Your task to perform on an android device: show emergency info Image 0: 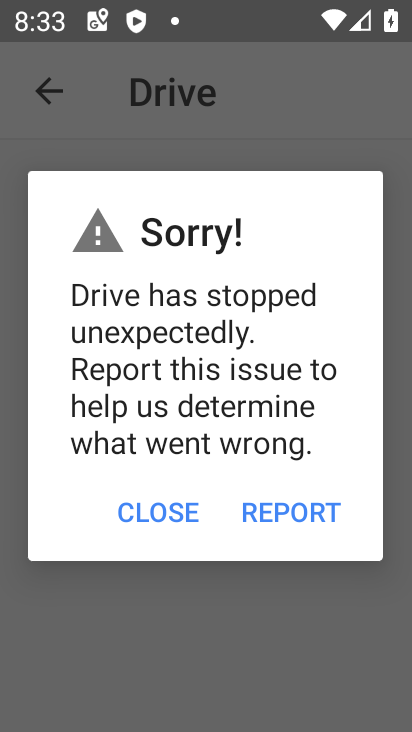
Step 0: press home button
Your task to perform on an android device: show emergency info Image 1: 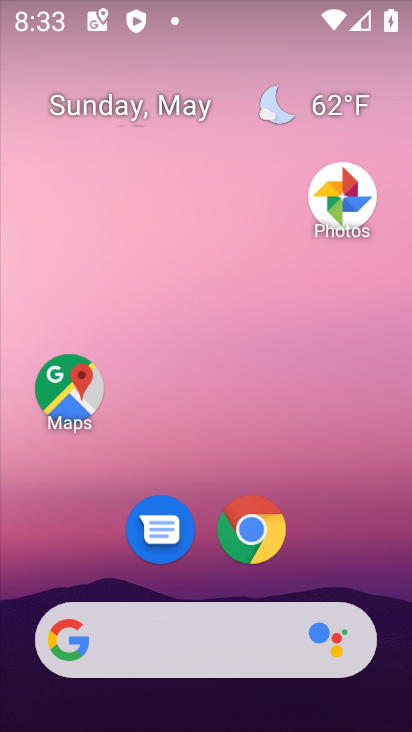
Step 1: drag from (372, 544) to (341, 117)
Your task to perform on an android device: show emergency info Image 2: 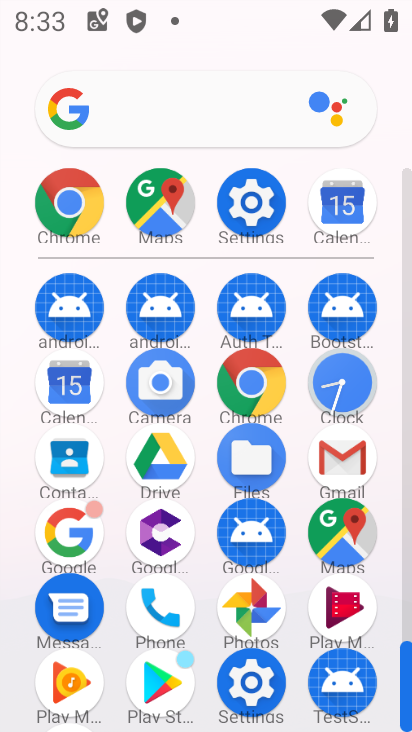
Step 2: click (246, 195)
Your task to perform on an android device: show emergency info Image 3: 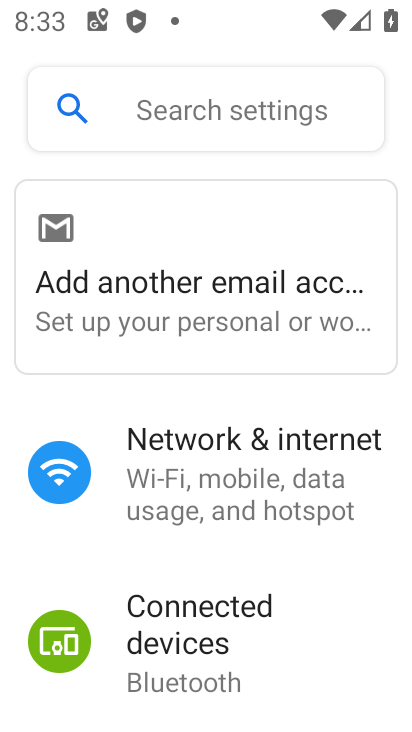
Step 3: drag from (279, 641) to (285, 265)
Your task to perform on an android device: show emergency info Image 4: 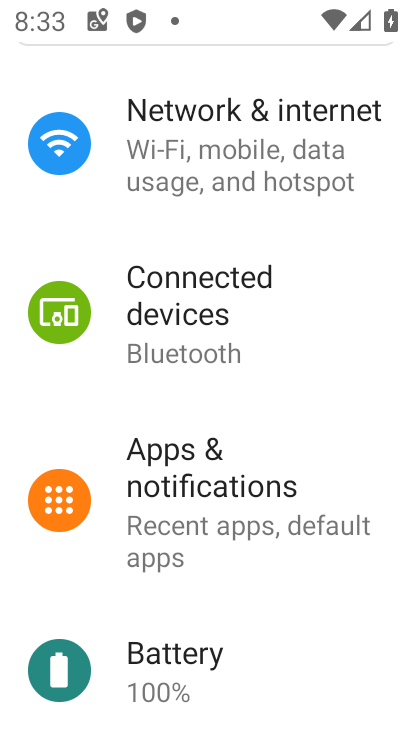
Step 4: drag from (301, 605) to (305, 255)
Your task to perform on an android device: show emergency info Image 5: 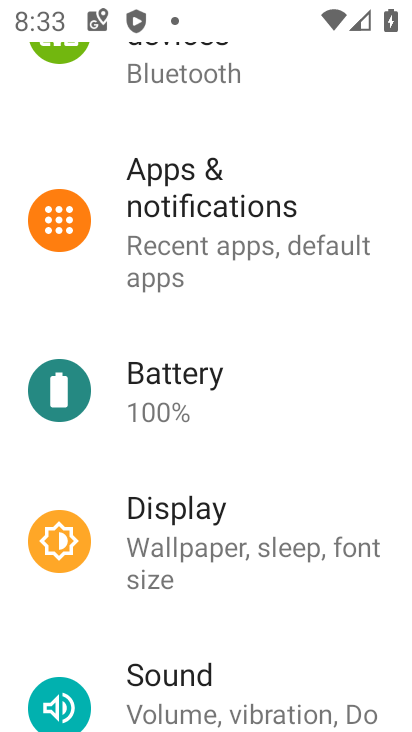
Step 5: click (300, 297)
Your task to perform on an android device: show emergency info Image 6: 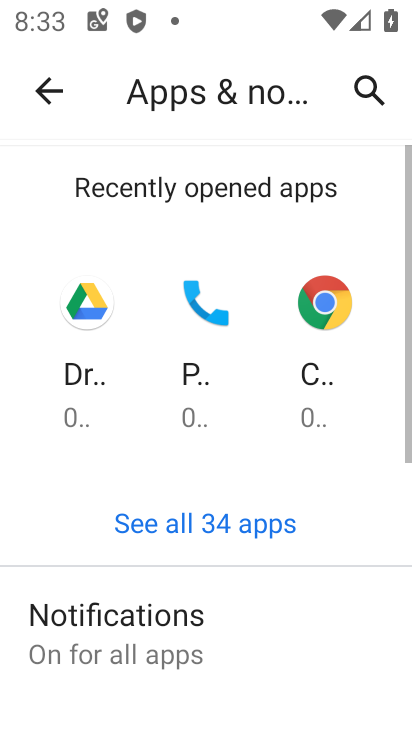
Step 6: click (31, 108)
Your task to perform on an android device: show emergency info Image 7: 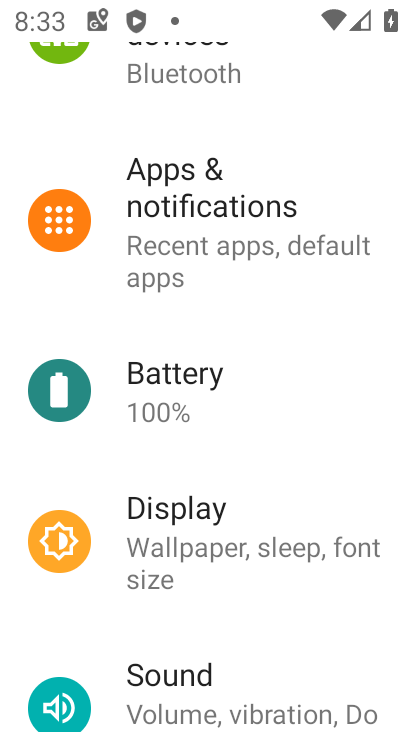
Step 7: drag from (293, 672) to (323, 243)
Your task to perform on an android device: show emergency info Image 8: 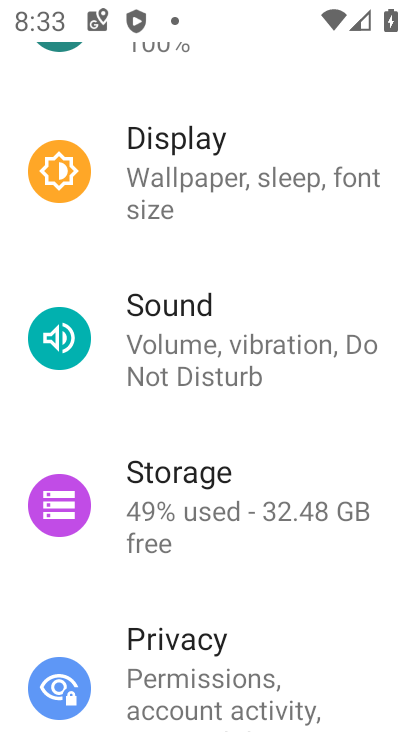
Step 8: drag from (333, 615) to (342, 253)
Your task to perform on an android device: show emergency info Image 9: 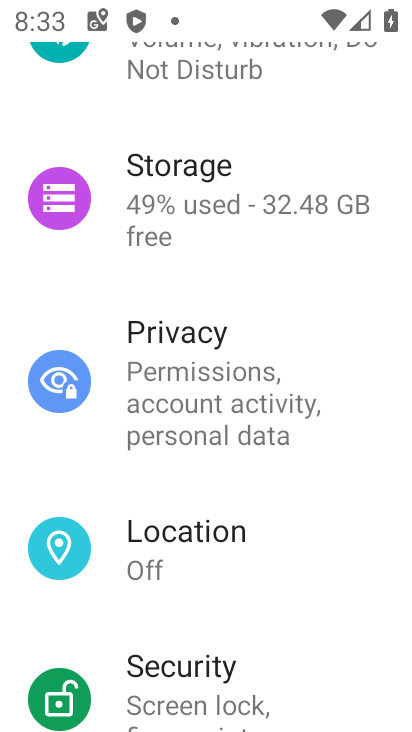
Step 9: drag from (319, 612) to (323, 221)
Your task to perform on an android device: show emergency info Image 10: 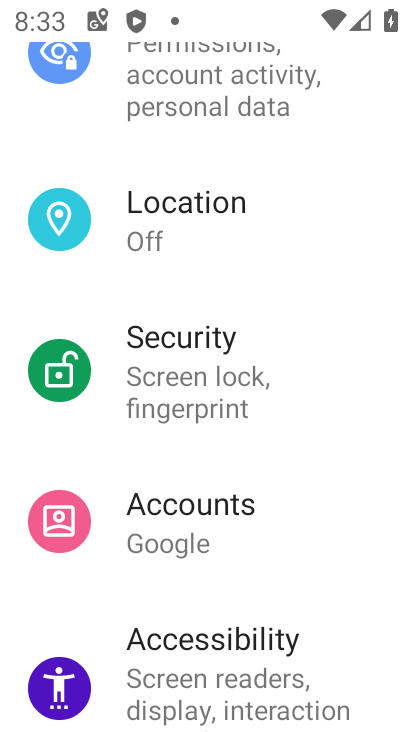
Step 10: drag from (365, 663) to (317, 232)
Your task to perform on an android device: show emergency info Image 11: 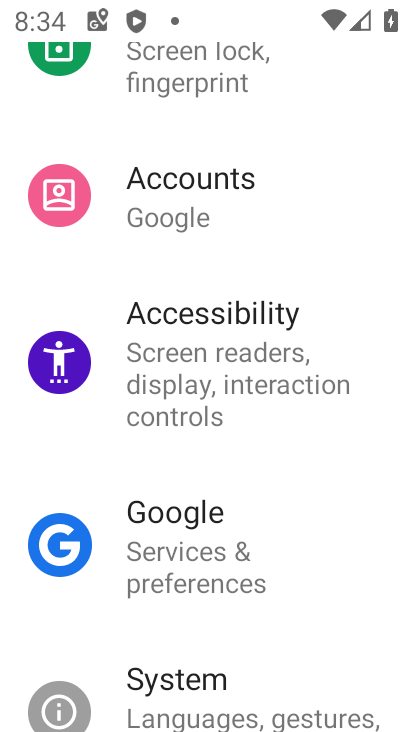
Step 11: drag from (309, 601) to (320, 236)
Your task to perform on an android device: show emergency info Image 12: 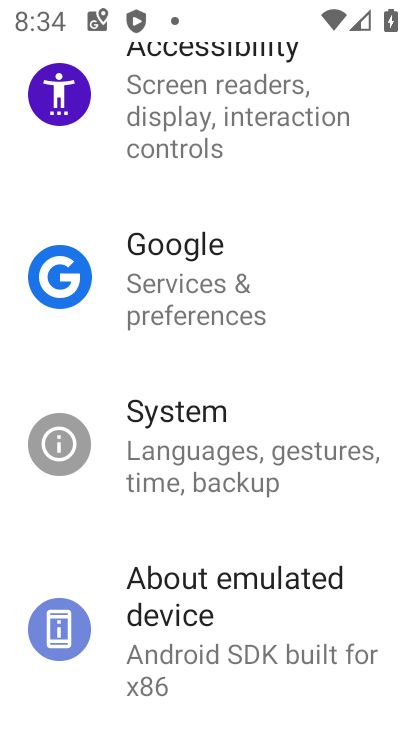
Step 12: click (316, 609)
Your task to perform on an android device: show emergency info Image 13: 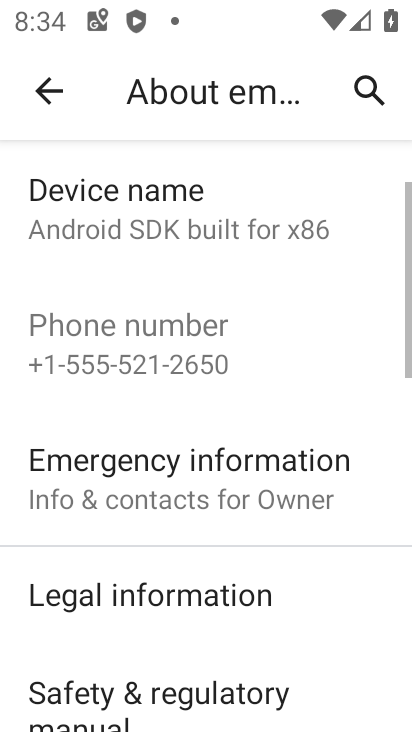
Step 13: click (262, 491)
Your task to perform on an android device: show emergency info Image 14: 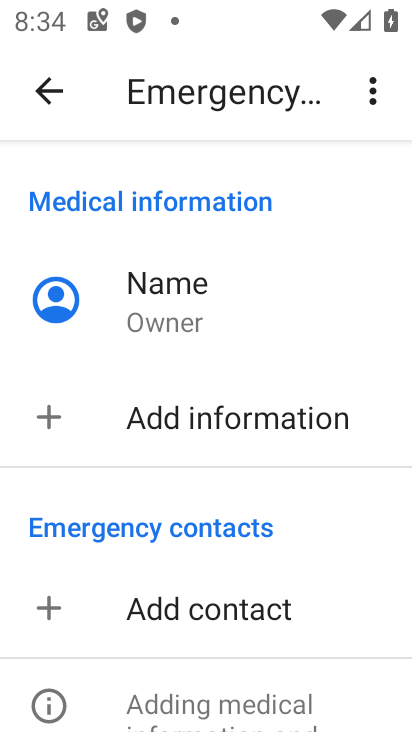
Step 14: task complete